Your task to perform on an android device: move an email to a new category in the gmail app Image 0: 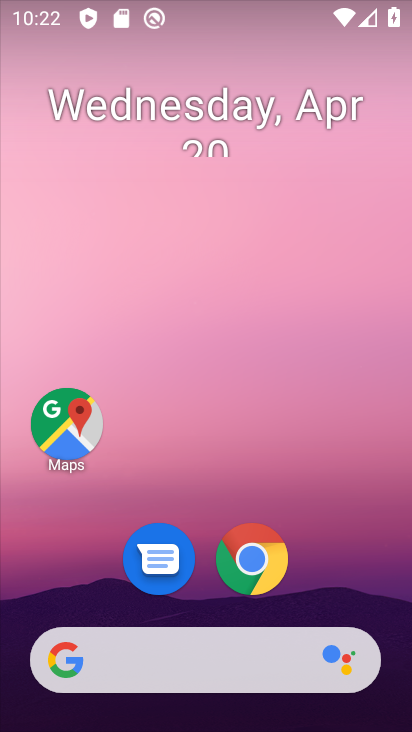
Step 0: drag from (177, 484) to (267, 4)
Your task to perform on an android device: move an email to a new category in the gmail app Image 1: 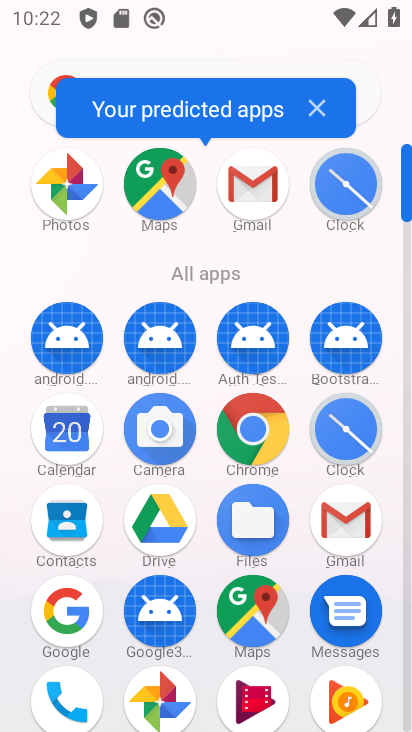
Step 1: click (338, 522)
Your task to perform on an android device: move an email to a new category in the gmail app Image 2: 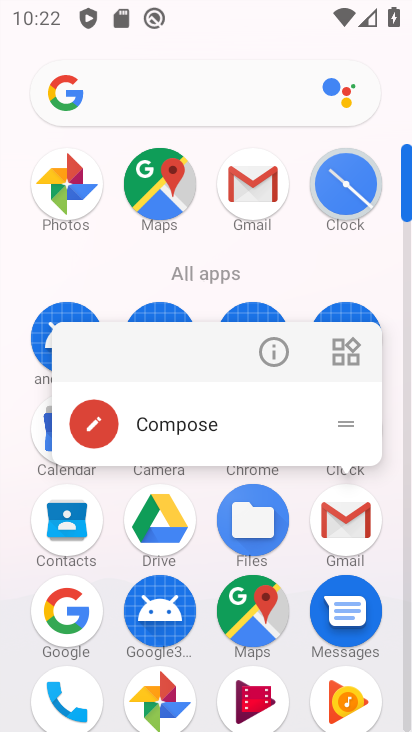
Step 2: click (349, 527)
Your task to perform on an android device: move an email to a new category in the gmail app Image 3: 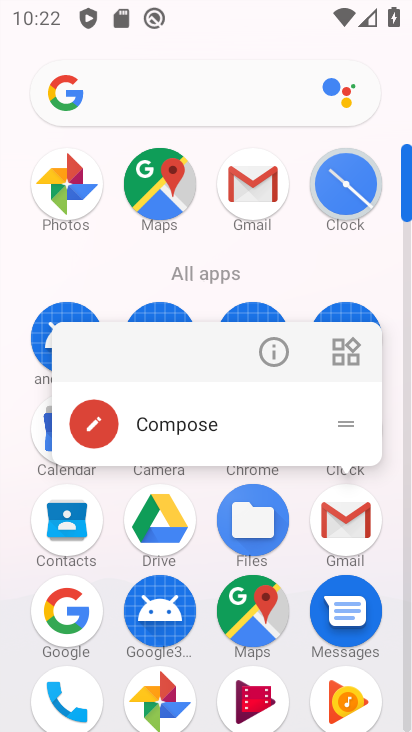
Step 3: click (349, 527)
Your task to perform on an android device: move an email to a new category in the gmail app Image 4: 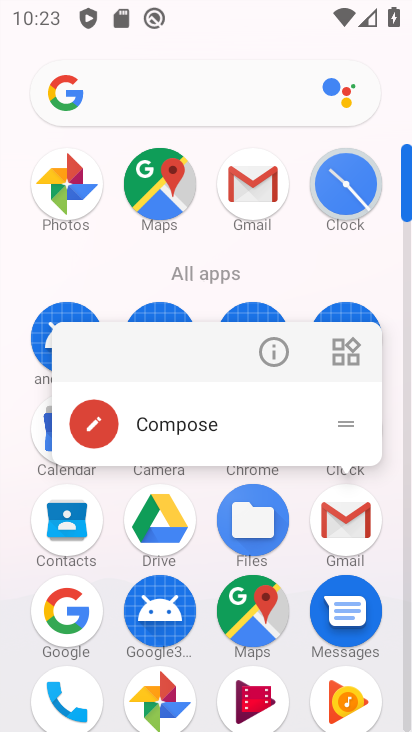
Step 4: click (349, 527)
Your task to perform on an android device: move an email to a new category in the gmail app Image 5: 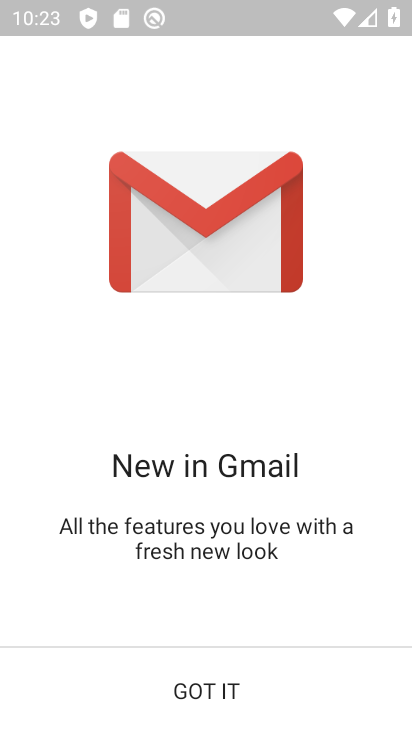
Step 5: click (202, 676)
Your task to perform on an android device: move an email to a new category in the gmail app Image 6: 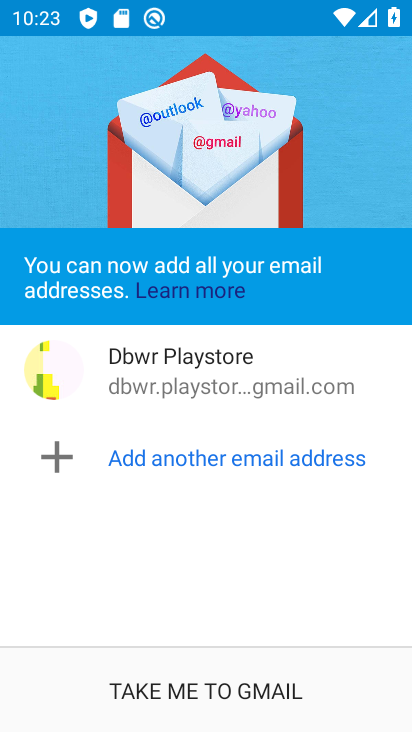
Step 6: click (202, 676)
Your task to perform on an android device: move an email to a new category in the gmail app Image 7: 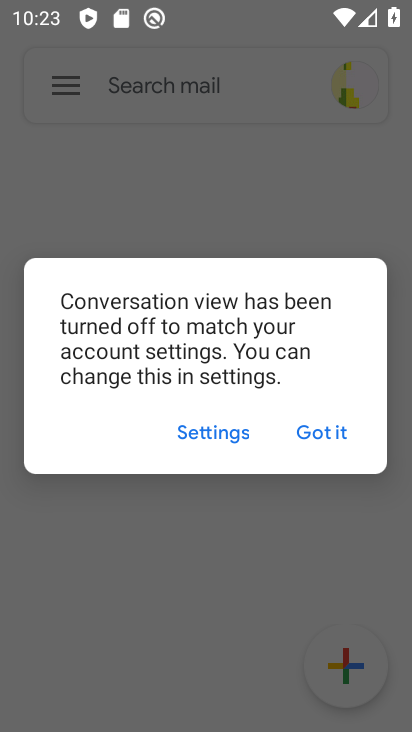
Step 7: click (312, 440)
Your task to perform on an android device: move an email to a new category in the gmail app Image 8: 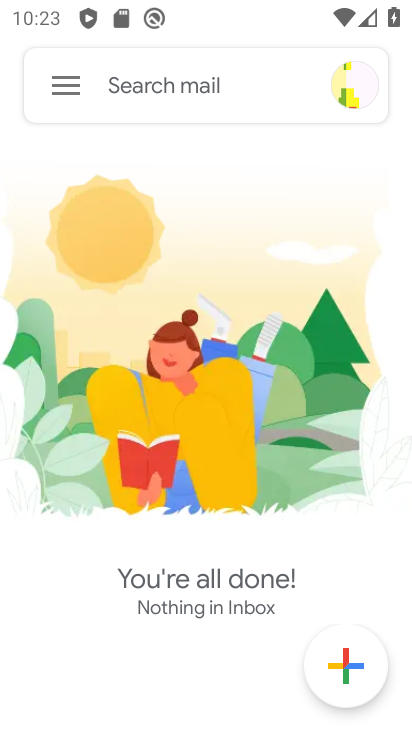
Step 8: click (62, 75)
Your task to perform on an android device: move an email to a new category in the gmail app Image 9: 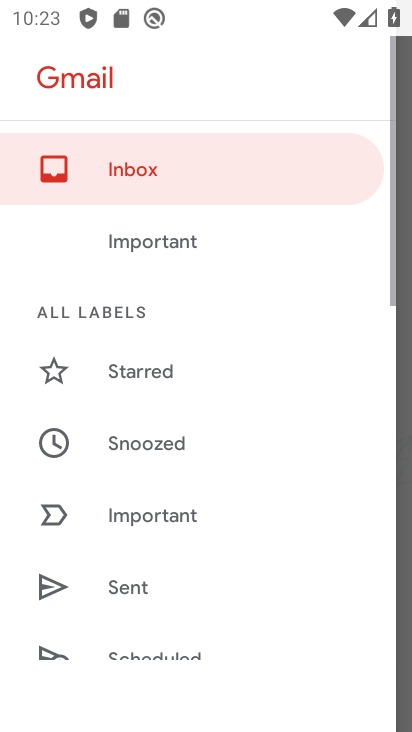
Step 9: task complete